Your task to perform on an android device: toggle translation in the chrome app Image 0: 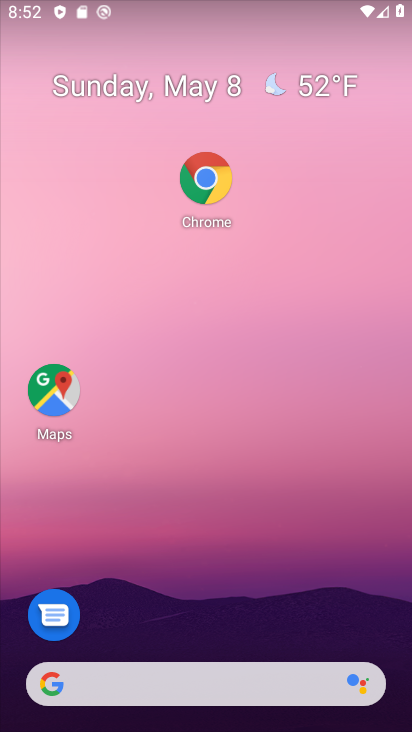
Step 0: drag from (233, 658) to (281, 127)
Your task to perform on an android device: toggle translation in the chrome app Image 1: 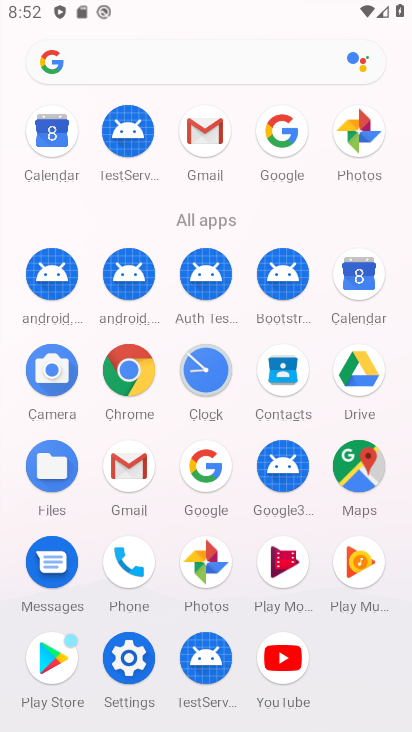
Step 1: click (124, 376)
Your task to perform on an android device: toggle translation in the chrome app Image 2: 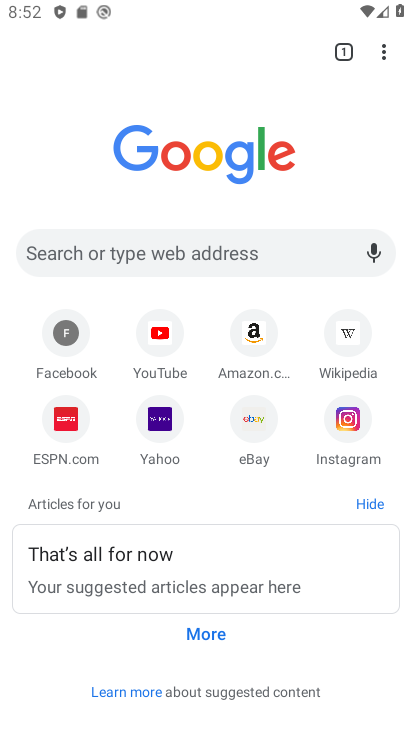
Step 2: click (378, 51)
Your task to perform on an android device: toggle translation in the chrome app Image 3: 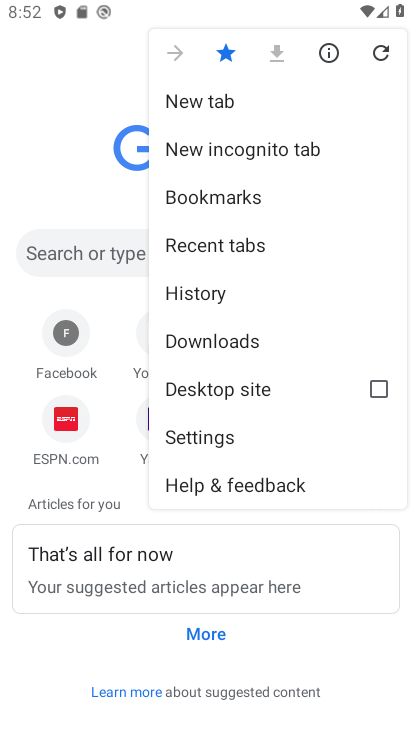
Step 3: click (214, 430)
Your task to perform on an android device: toggle translation in the chrome app Image 4: 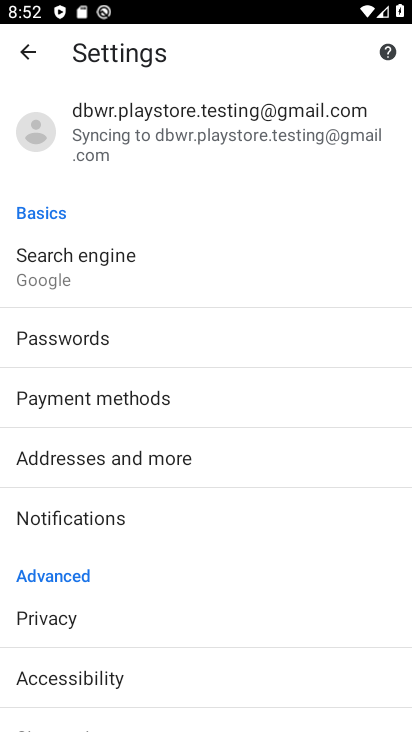
Step 4: drag from (143, 674) to (97, 263)
Your task to perform on an android device: toggle translation in the chrome app Image 5: 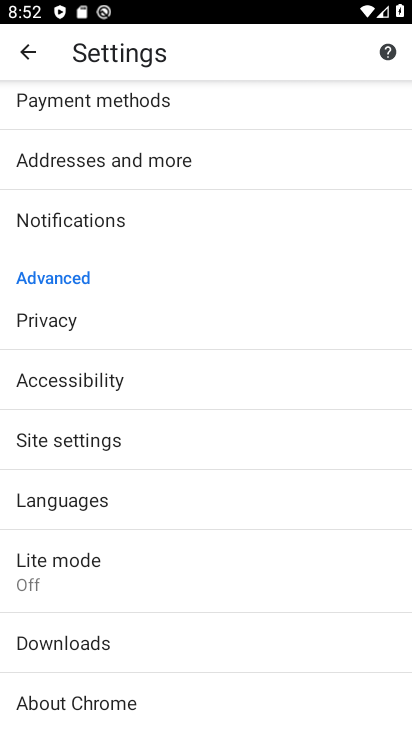
Step 5: click (69, 494)
Your task to perform on an android device: toggle translation in the chrome app Image 6: 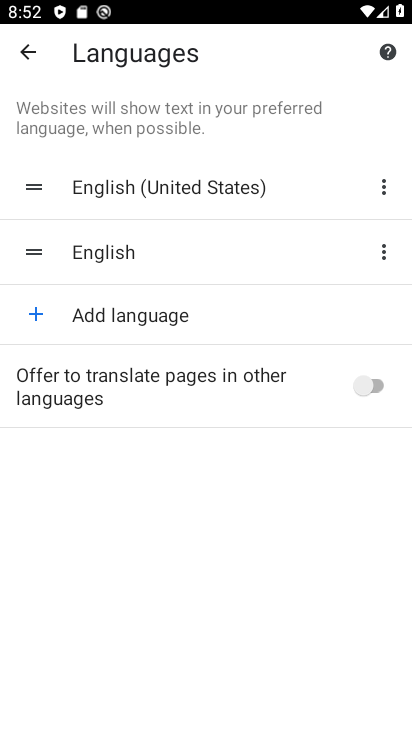
Step 6: click (380, 385)
Your task to perform on an android device: toggle translation in the chrome app Image 7: 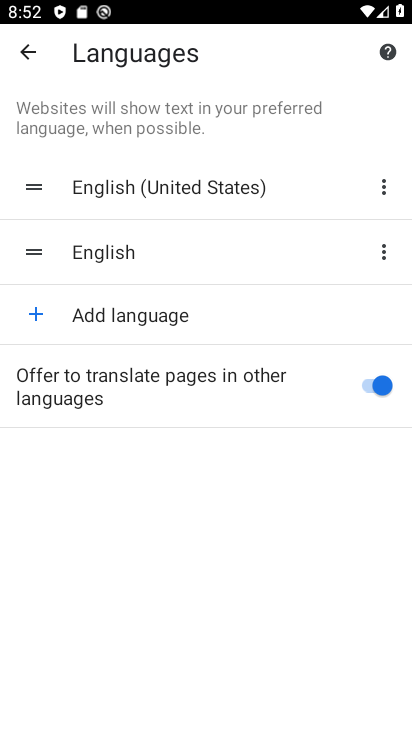
Step 7: task complete